Your task to perform on an android device: turn off data saver in the chrome app Image 0: 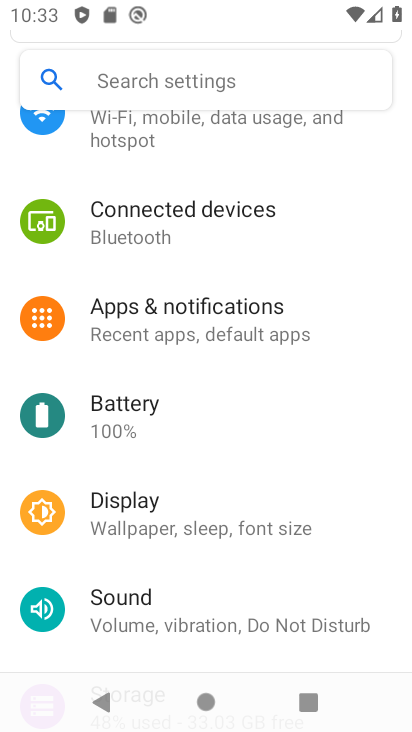
Step 0: press home button
Your task to perform on an android device: turn off data saver in the chrome app Image 1: 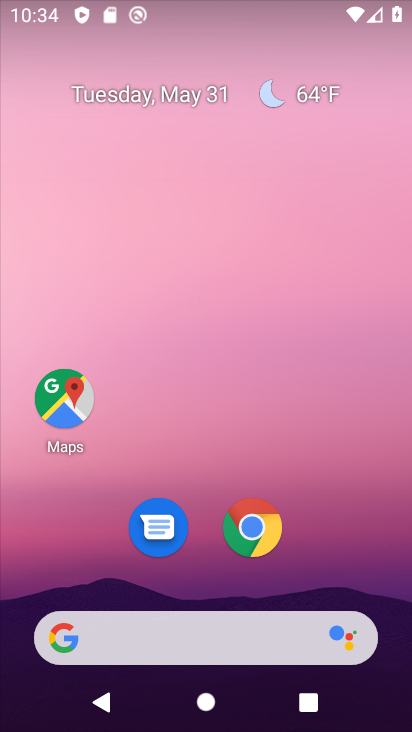
Step 1: click (258, 530)
Your task to perform on an android device: turn off data saver in the chrome app Image 2: 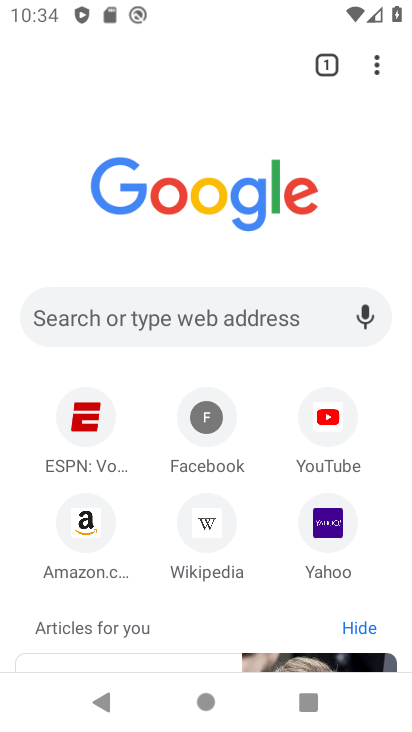
Step 2: click (373, 58)
Your task to perform on an android device: turn off data saver in the chrome app Image 3: 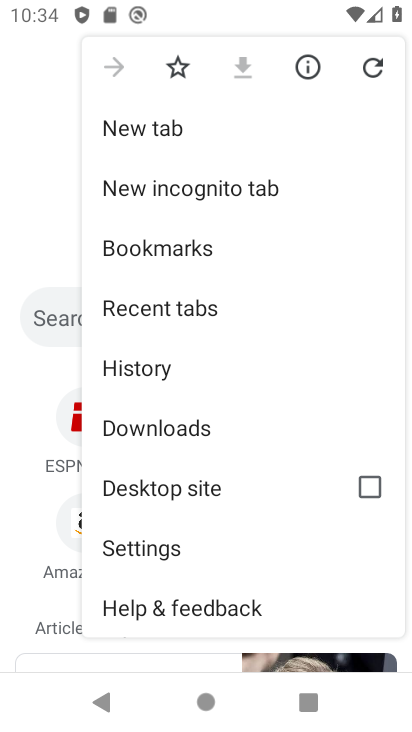
Step 3: click (161, 544)
Your task to perform on an android device: turn off data saver in the chrome app Image 4: 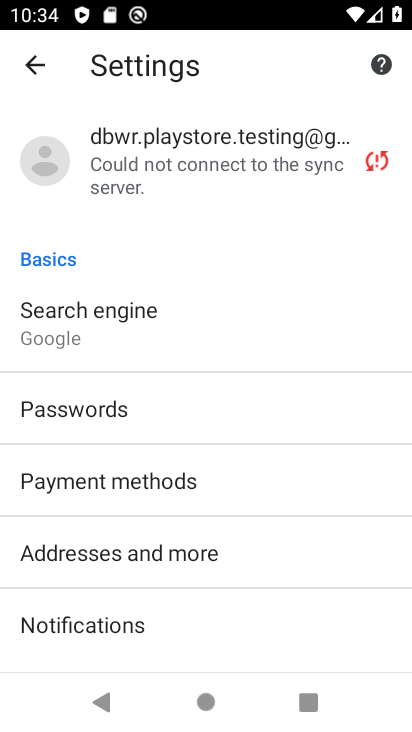
Step 4: drag from (276, 612) to (267, 18)
Your task to perform on an android device: turn off data saver in the chrome app Image 5: 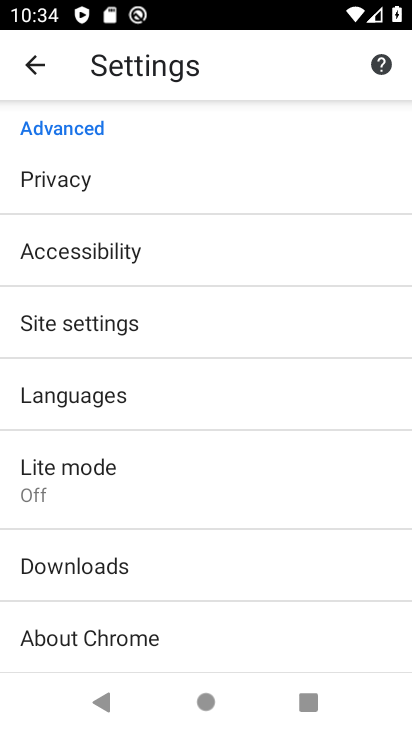
Step 5: click (176, 471)
Your task to perform on an android device: turn off data saver in the chrome app Image 6: 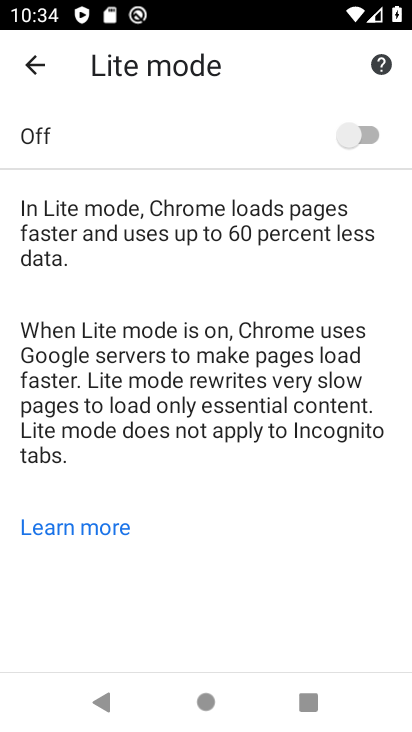
Step 6: task complete